Your task to perform on an android device: Open settings on Google Maps Image 0: 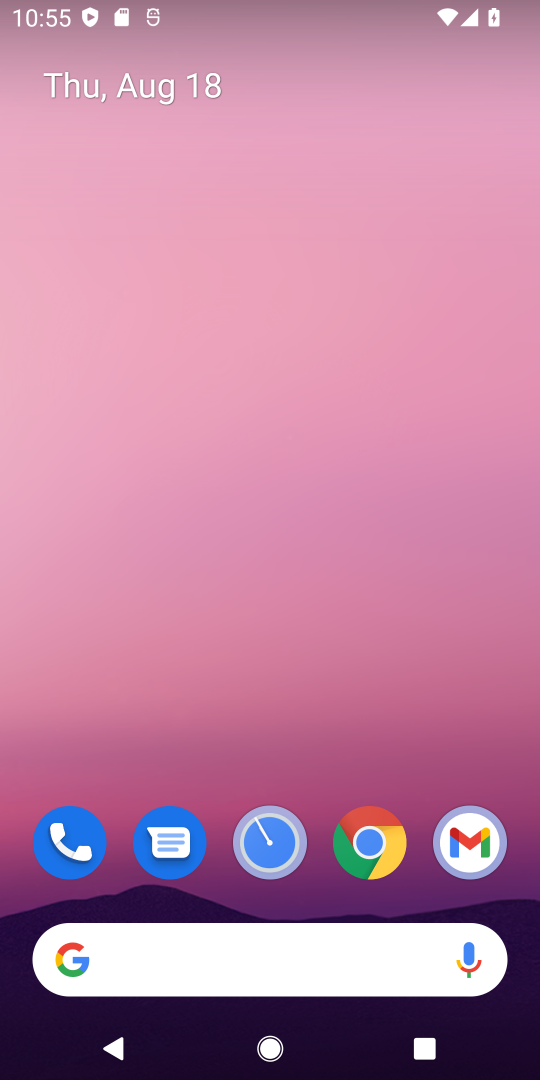
Step 0: drag from (212, 904) to (125, 123)
Your task to perform on an android device: Open settings on Google Maps Image 1: 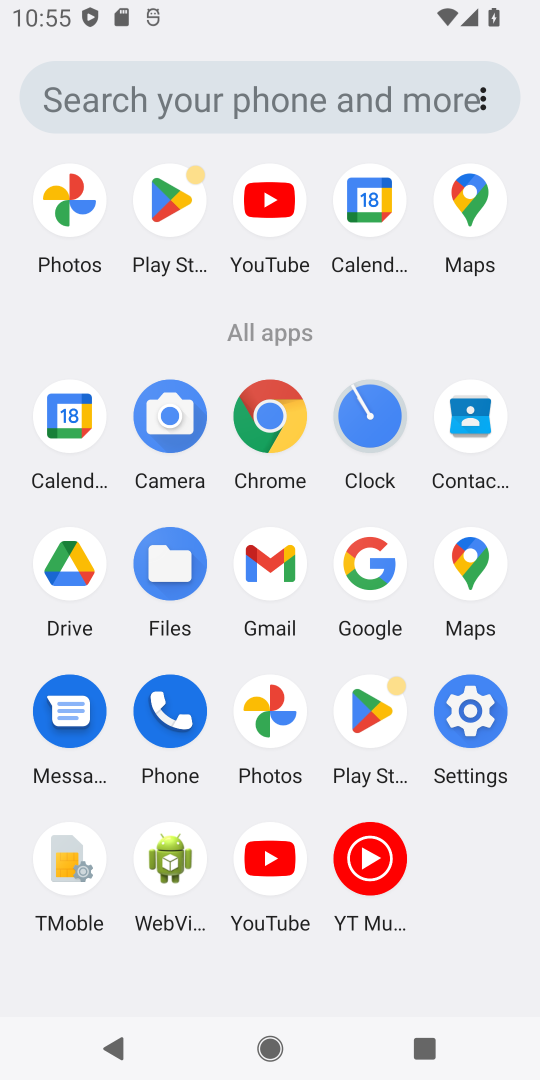
Step 1: click (464, 543)
Your task to perform on an android device: Open settings on Google Maps Image 2: 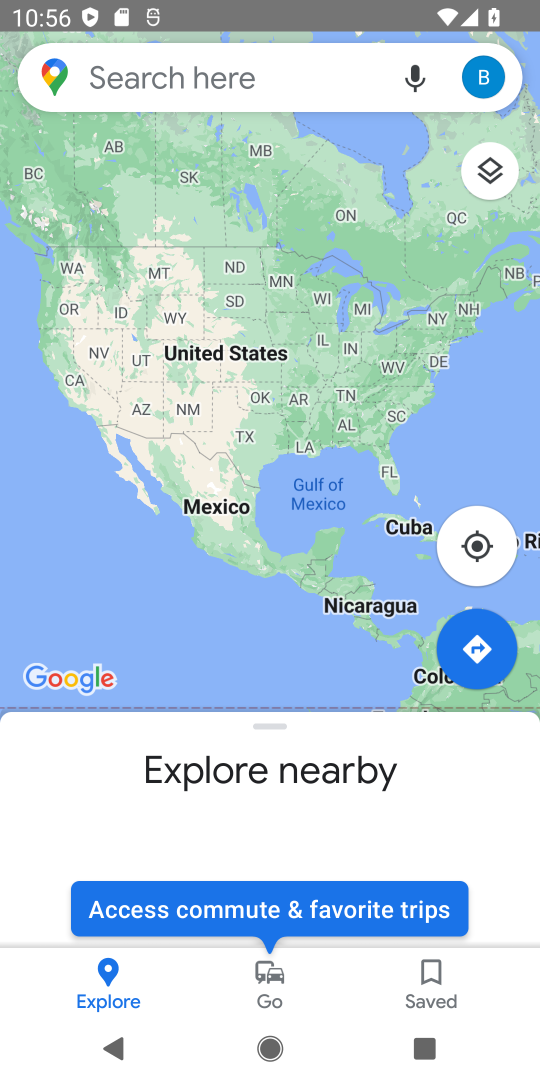
Step 2: click (480, 92)
Your task to perform on an android device: Open settings on Google Maps Image 3: 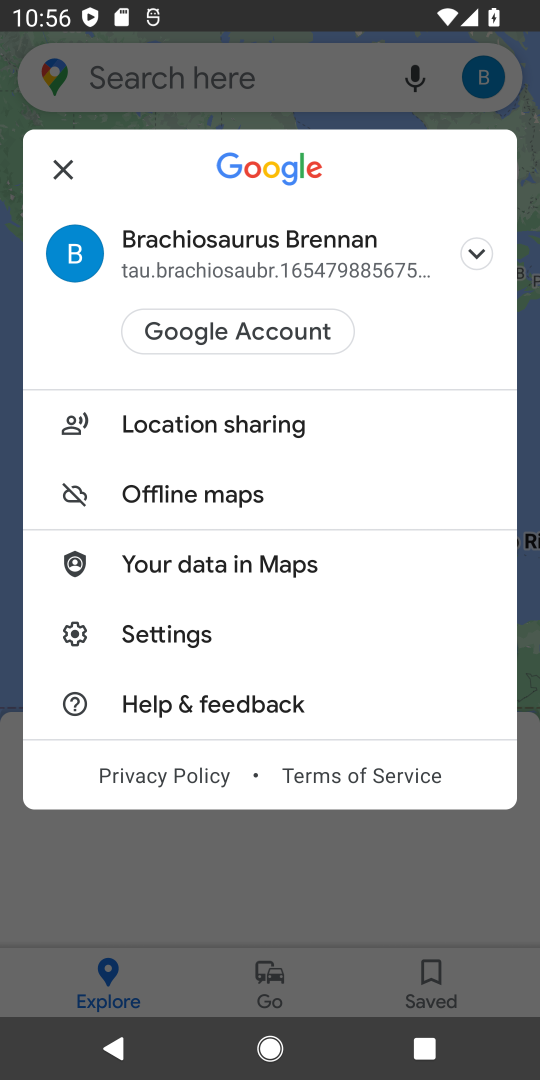
Step 3: click (217, 643)
Your task to perform on an android device: Open settings on Google Maps Image 4: 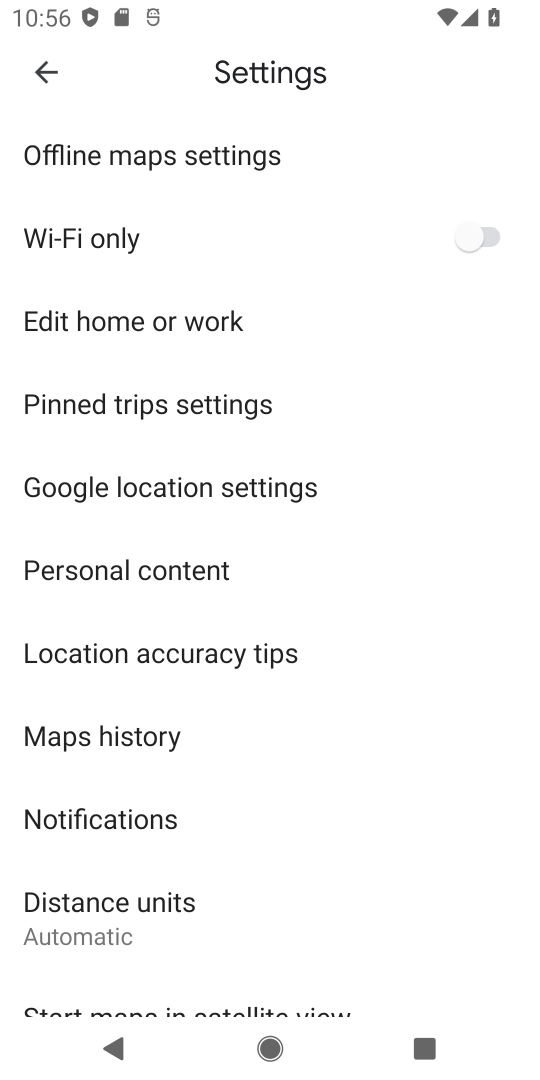
Step 4: task complete